Your task to perform on an android device: remove spam from my inbox in the gmail app Image 0: 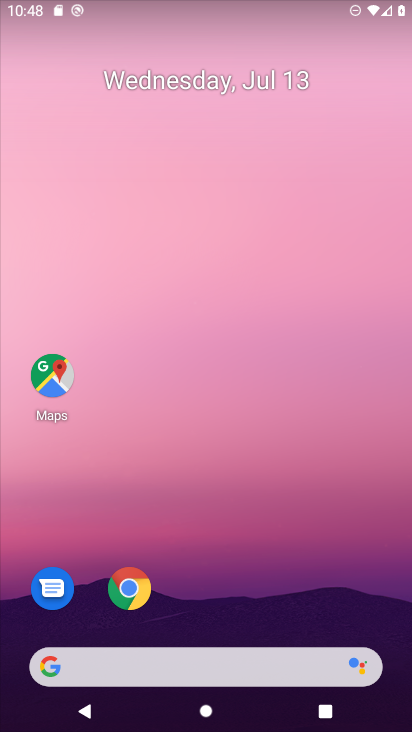
Step 0: drag from (231, 615) to (73, 7)
Your task to perform on an android device: remove spam from my inbox in the gmail app Image 1: 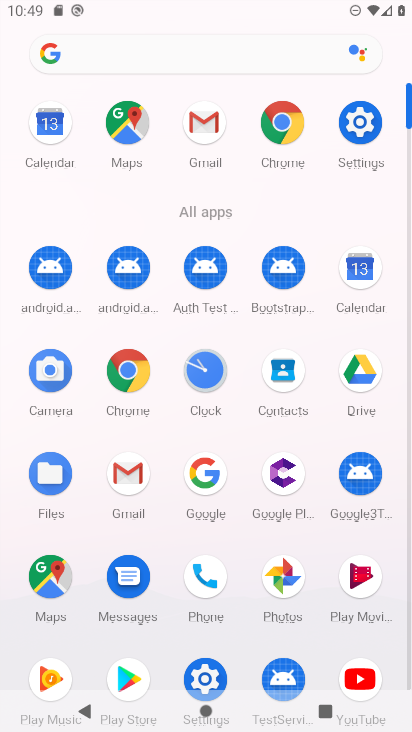
Step 1: click (126, 549)
Your task to perform on an android device: remove spam from my inbox in the gmail app Image 2: 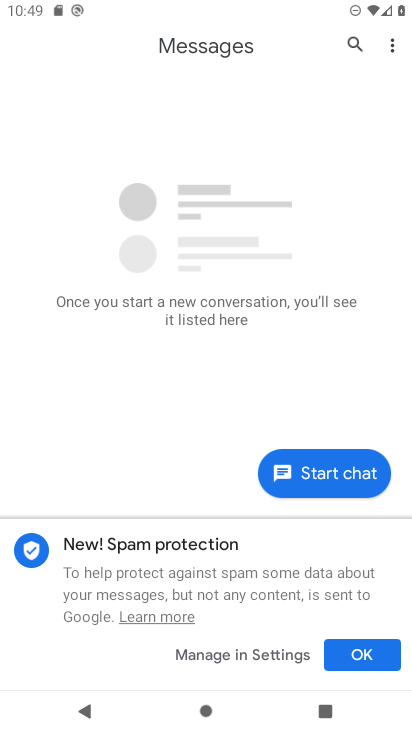
Step 2: press home button
Your task to perform on an android device: remove spam from my inbox in the gmail app Image 3: 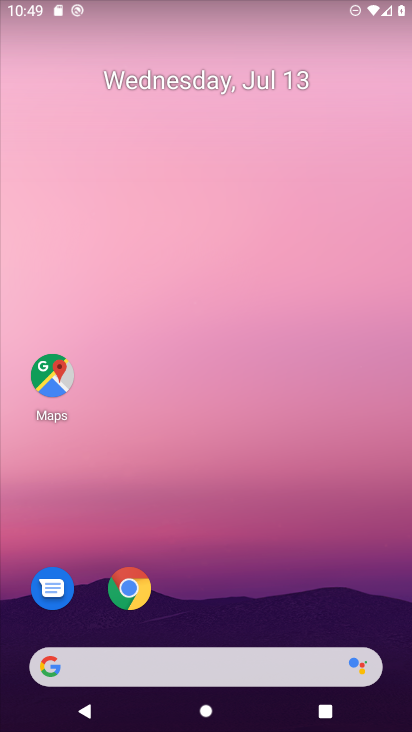
Step 3: drag from (218, 635) to (217, 1)
Your task to perform on an android device: remove spam from my inbox in the gmail app Image 4: 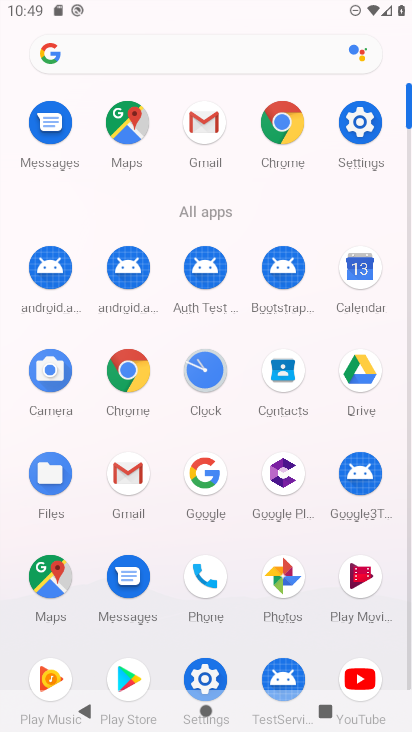
Step 4: click (131, 475)
Your task to perform on an android device: remove spam from my inbox in the gmail app Image 5: 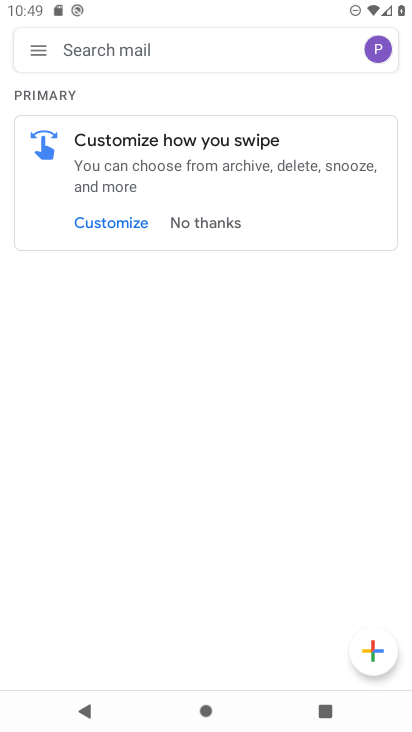
Step 5: click (172, 225)
Your task to perform on an android device: remove spam from my inbox in the gmail app Image 6: 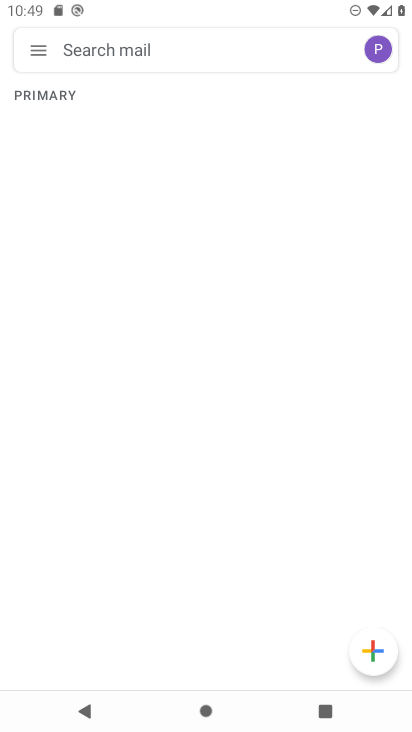
Step 6: click (35, 49)
Your task to perform on an android device: remove spam from my inbox in the gmail app Image 7: 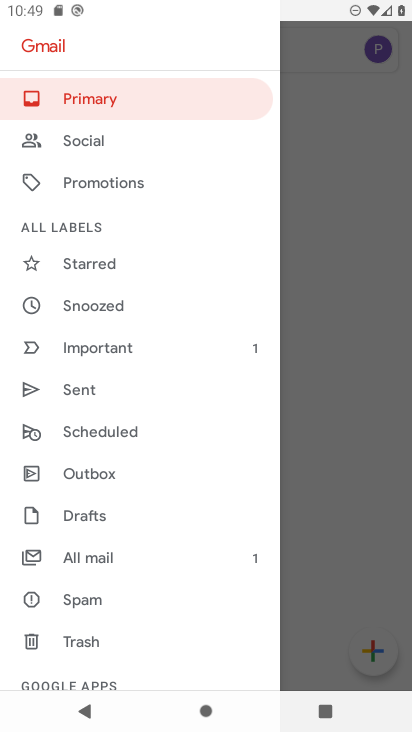
Step 7: click (105, 607)
Your task to perform on an android device: remove spam from my inbox in the gmail app Image 8: 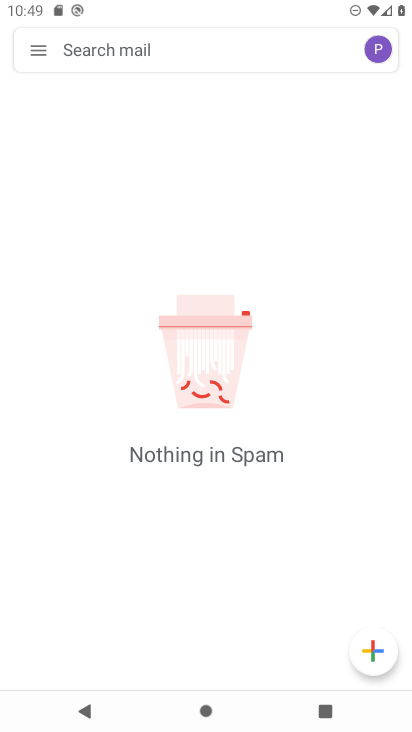
Step 8: task complete